Your task to perform on an android device: allow notifications from all sites in the chrome app Image 0: 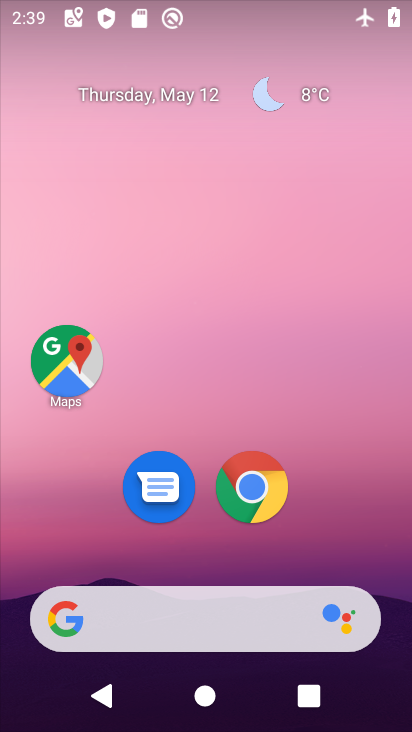
Step 0: click (242, 487)
Your task to perform on an android device: allow notifications from all sites in the chrome app Image 1: 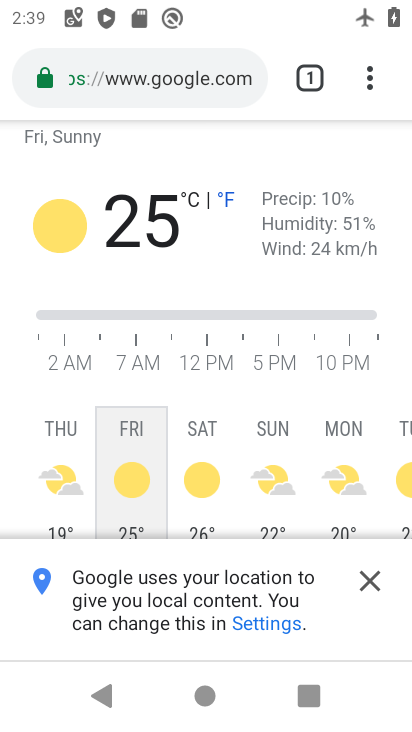
Step 1: drag from (368, 84) to (213, 550)
Your task to perform on an android device: allow notifications from all sites in the chrome app Image 2: 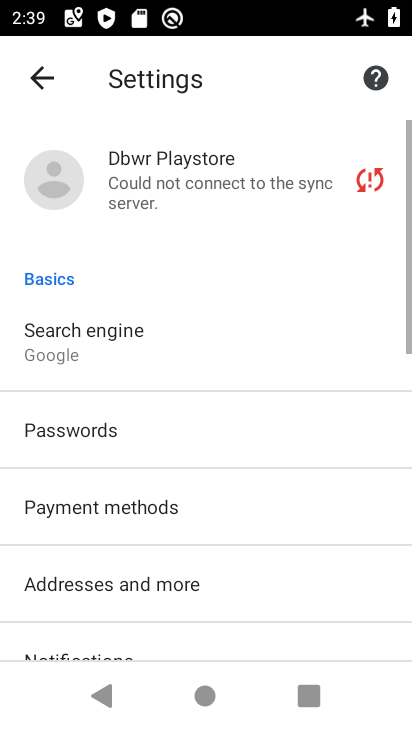
Step 2: drag from (211, 527) to (190, 206)
Your task to perform on an android device: allow notifications from all sites in the chrome app Image 3: 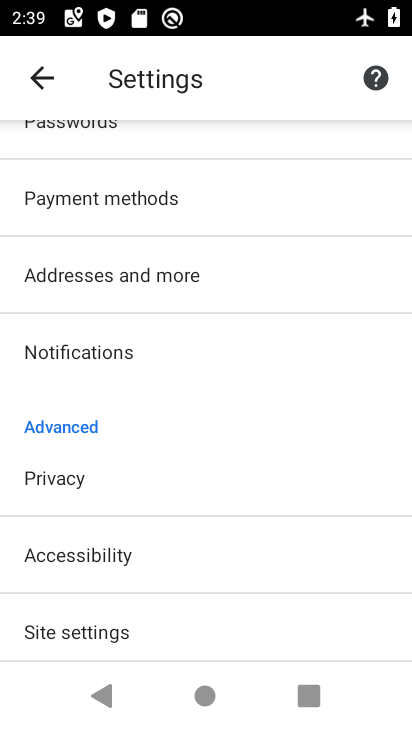
Step 3: click (99, 356)
Your task to perform on an android device: allow notifications from all sites in the chrome app Image 4: 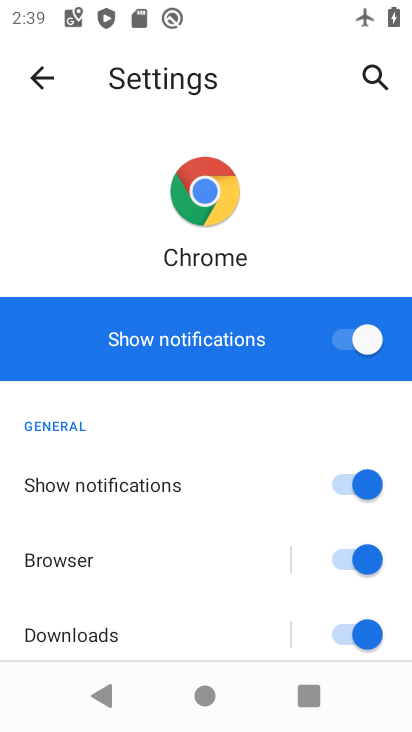
Step 4: task complete